Your task to perform on an android device: open app "Etsy: Buy & Sell Unique Items" Image 0: 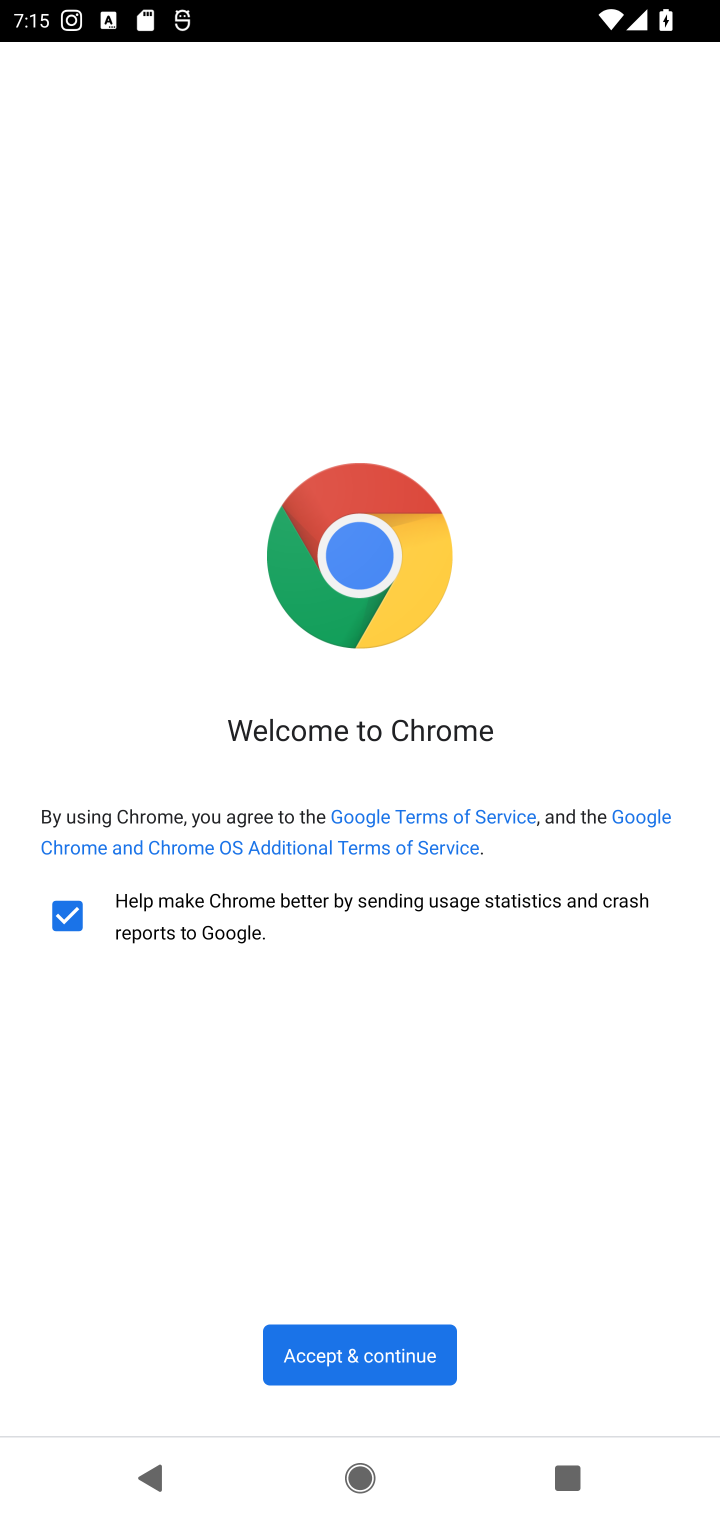
Step 0: press home button
Your task to perform on an android device: open app "Etsy: Buy & Sell Unique Items" Image 1: 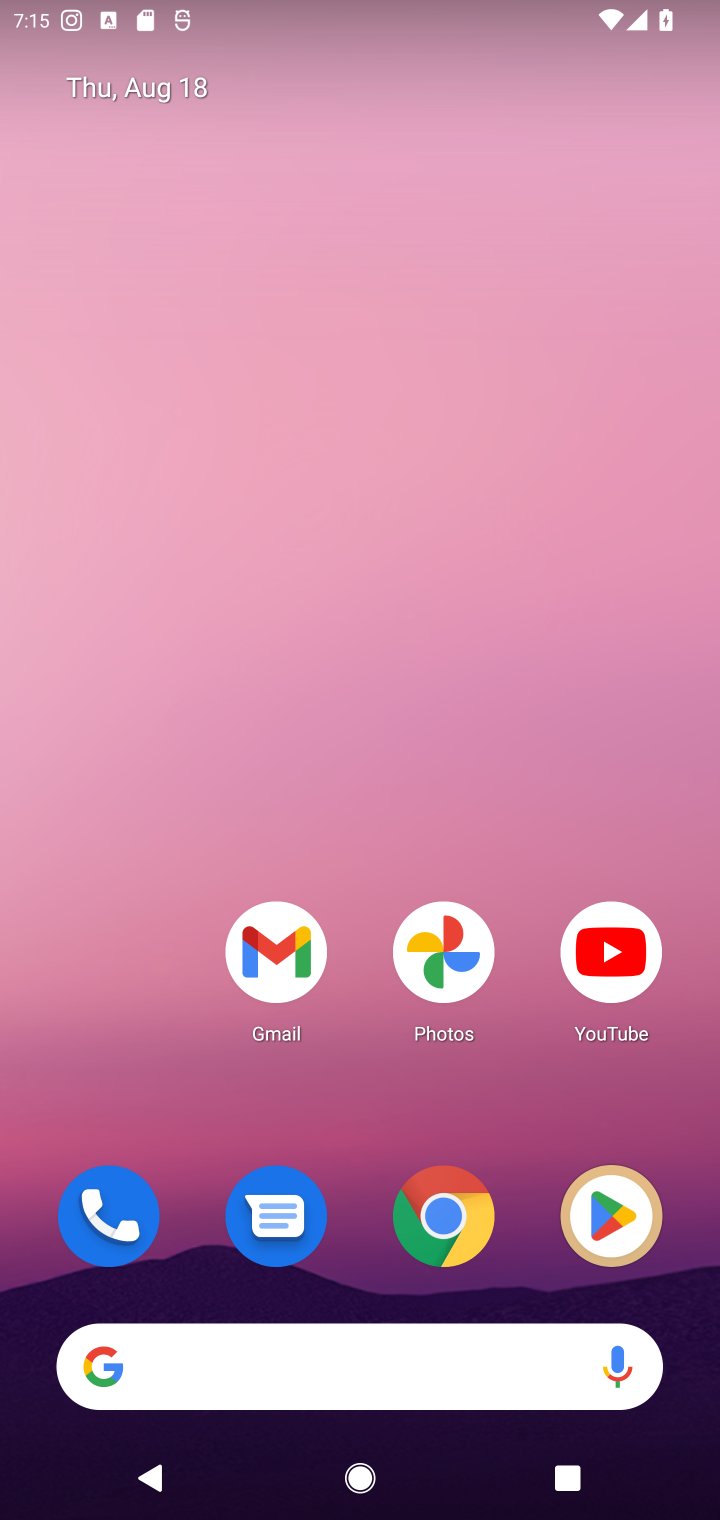
Step 1: click (596, 1175)
Your task to perform on an android device: open app "Etsy: Buy & Sell Unique Items" Image 2: 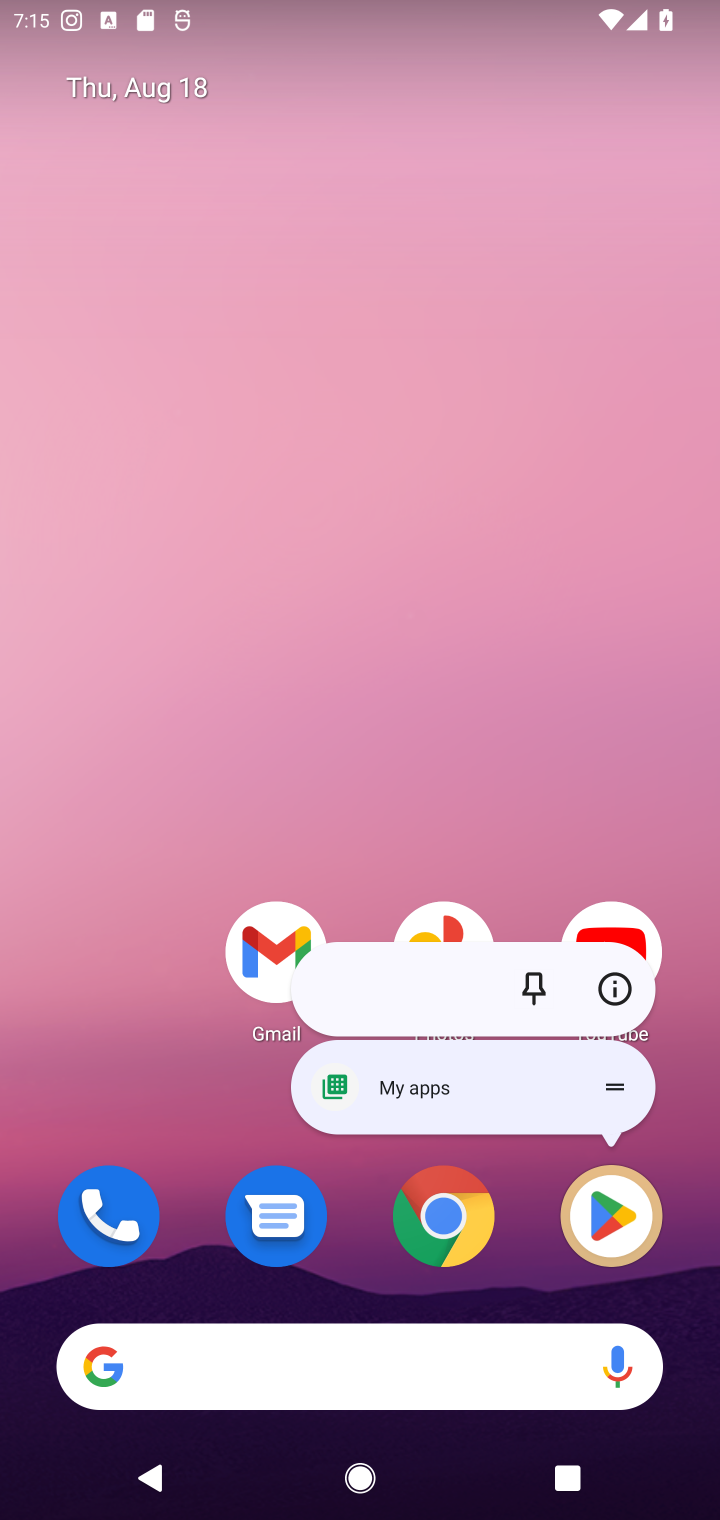
Step 2: click (593, 1197)
Your task to perform on an android device: open app "Etsy: Buy & Sell Unique Items" Image 3: 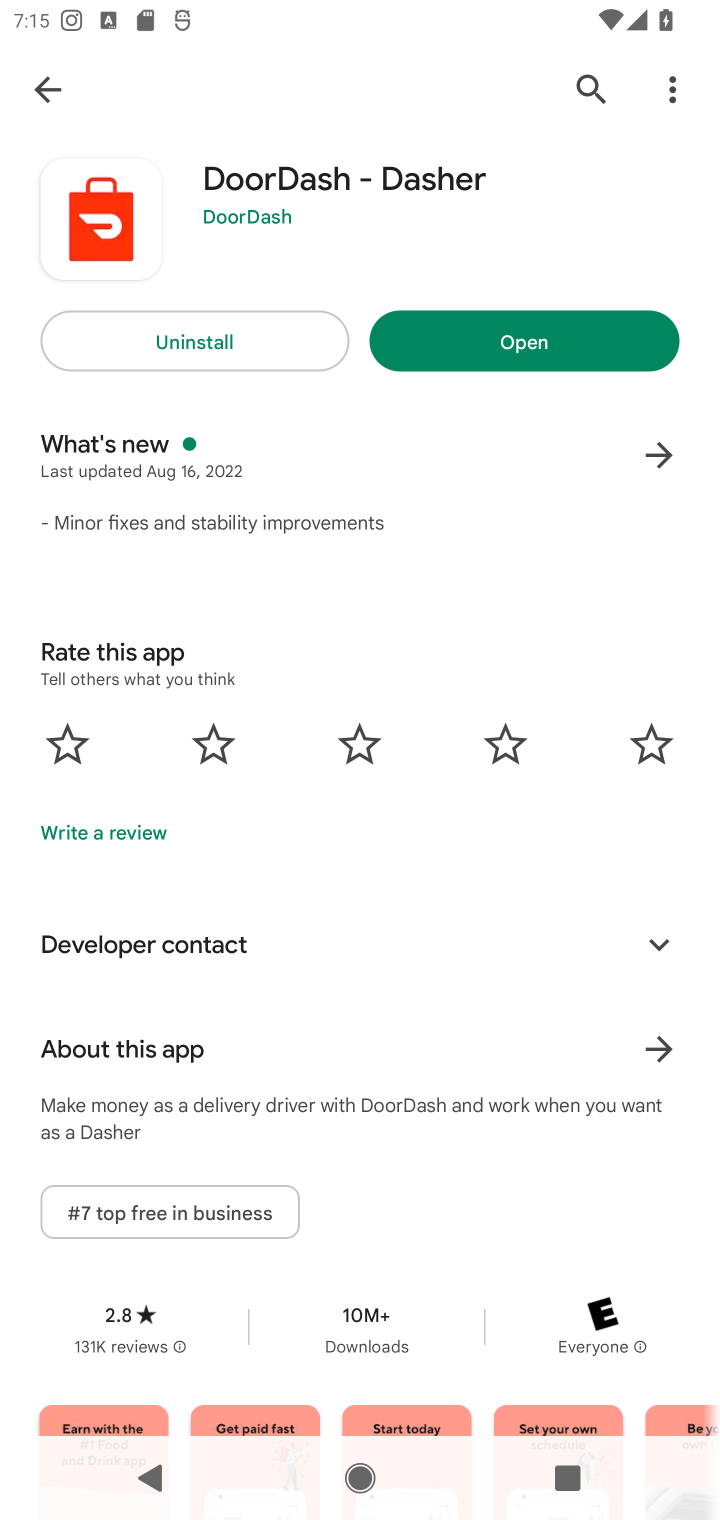
Step 3: click (573, 78)
Your task to perform on an android device: open app "Etsy: Buy & Sell Unique Items" Image 4: 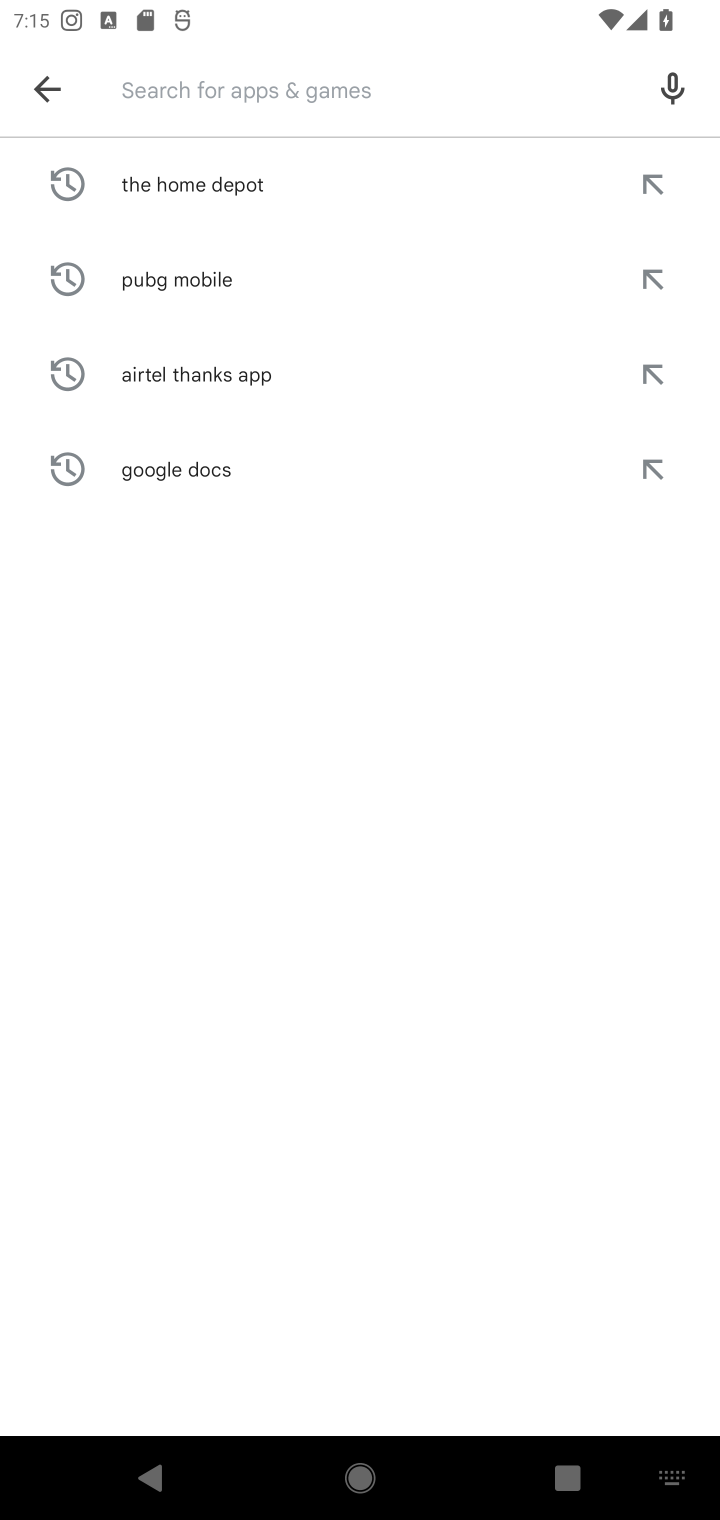
Step 4: type "Etsy: Buy & Sell Unique Items"
Your task to perform on an android device: open app "Etsy: Buy & Sell Unique Items" Image 5: 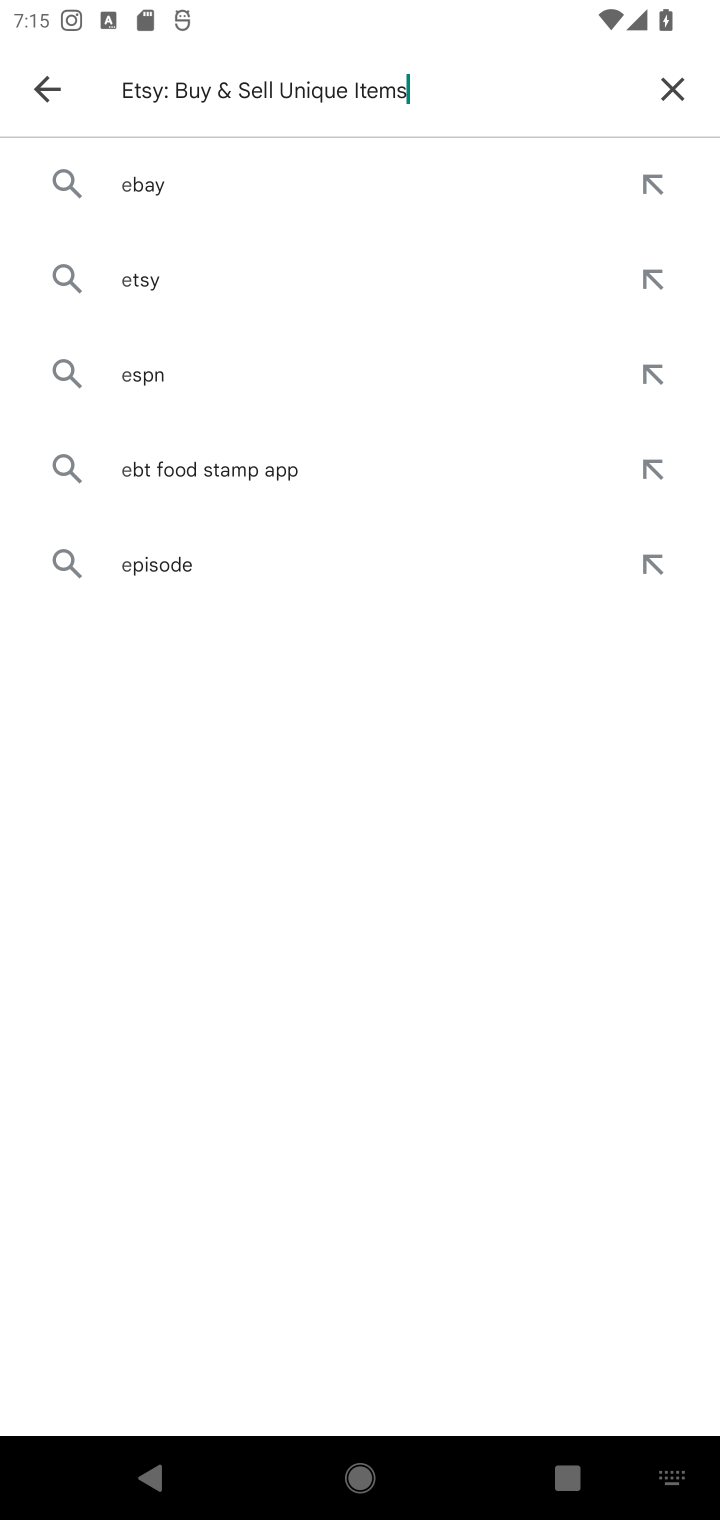
Step 5: type ""
Your task to perform on an android device: open app "Etsy: Buy & Sell Unique Items" Image 6: 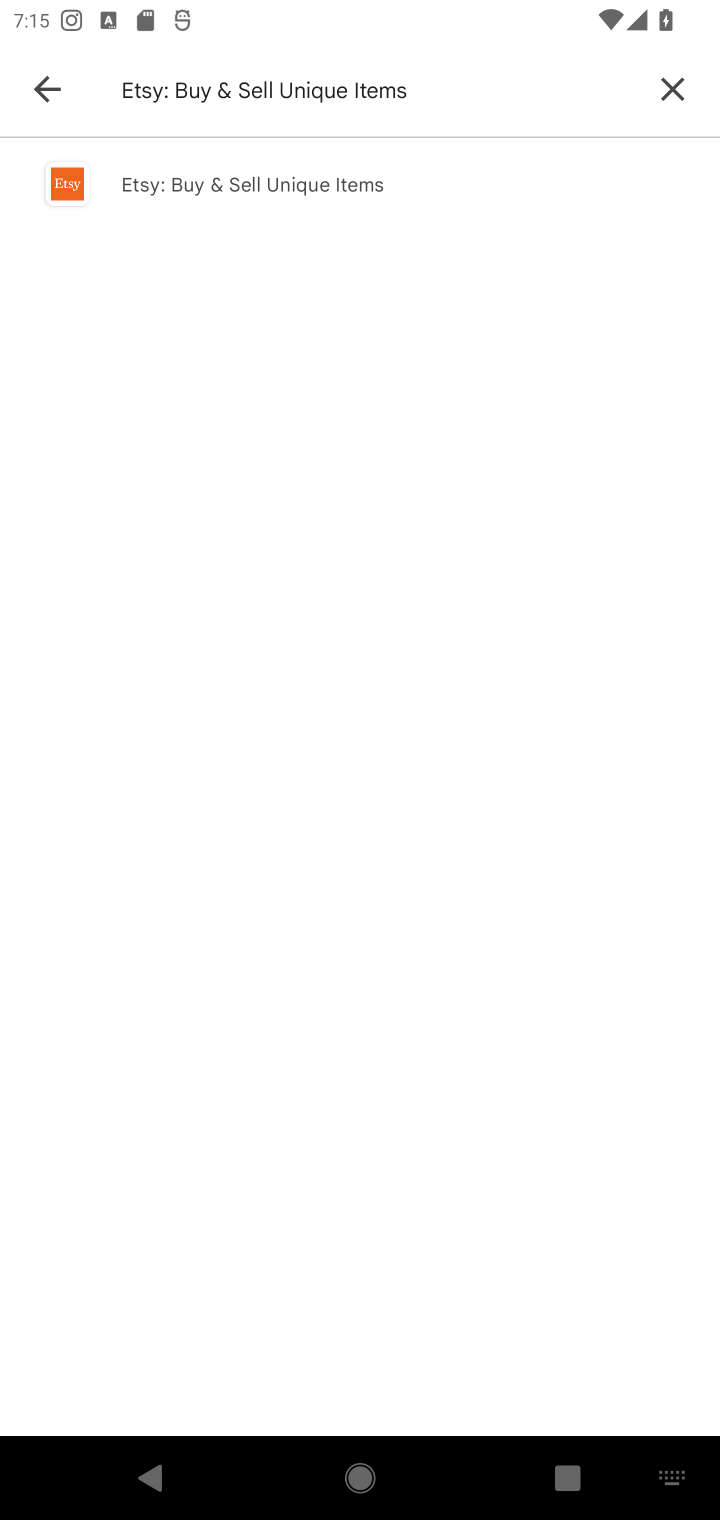
Step 6: click (283, 180)
Your task to perform on an android device: open app "Etsy: Buy & Sell Unique Items" Image 7: 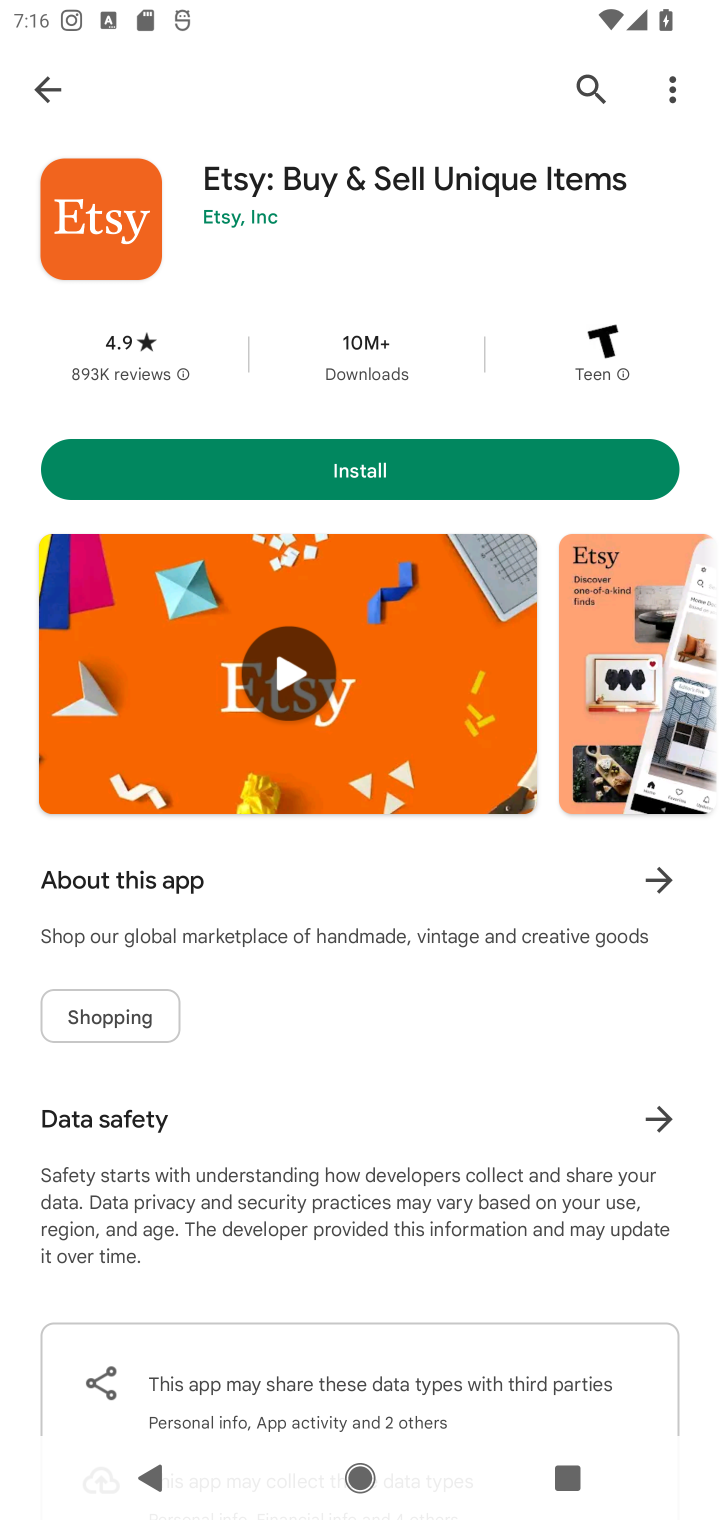
Step 7: task complete